Your task to perform on an android device: Open battery settings Image 0: 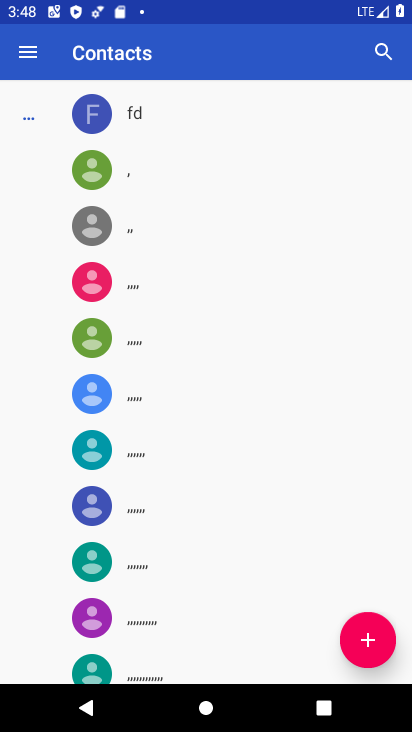
Step 0: press home button
Your task to perform on an android device: Open battery settings Image 1: 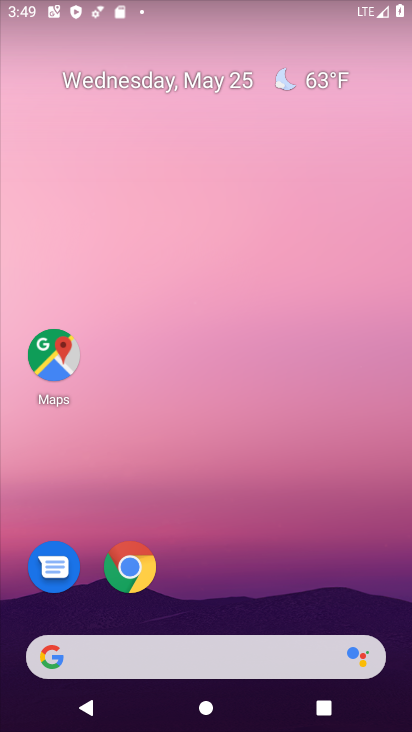
Step 1: drag from (285, 579) to (250, 36)
Your task to perform on an android device: Open battery settings Image 2: 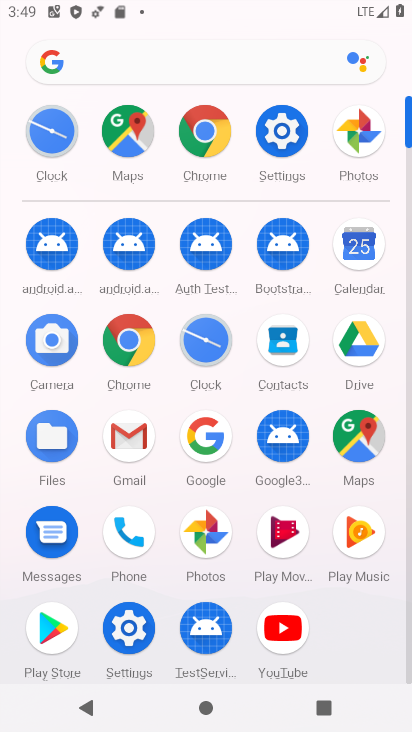
Step 2: click (293, 128)
Your task to perform on an android device: Open battery settings Image 3: 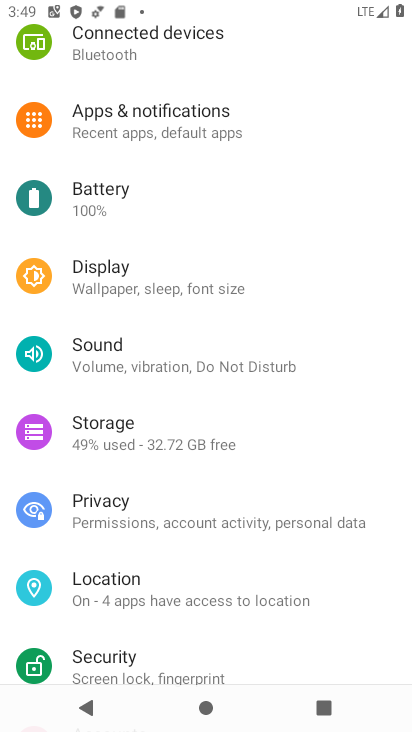
Step 3: click (103, 189)
Your task to perform on an android device: Open battery settings Image 4: 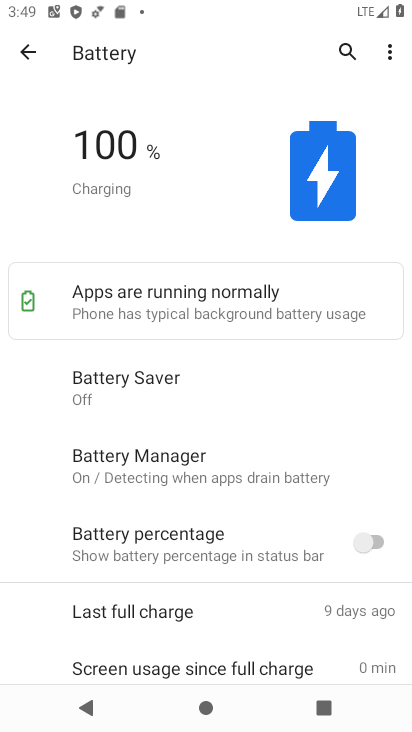
Step 4: task complete